Your task to perform on an android device: Go to Amazon Image 0: 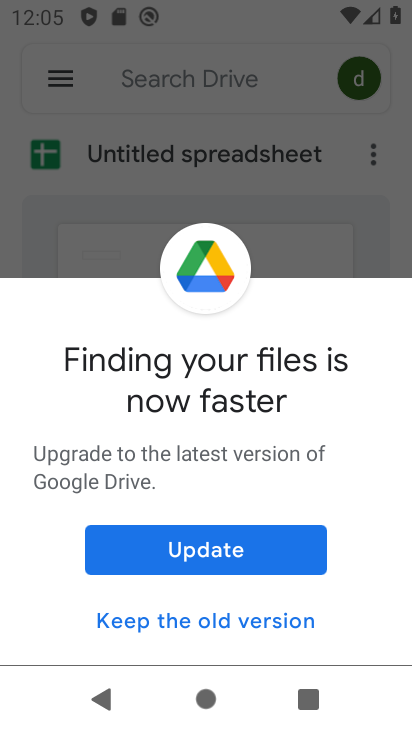
Step 0: press home button
Your task to perform on an android device: Go to Amazon Image 1: 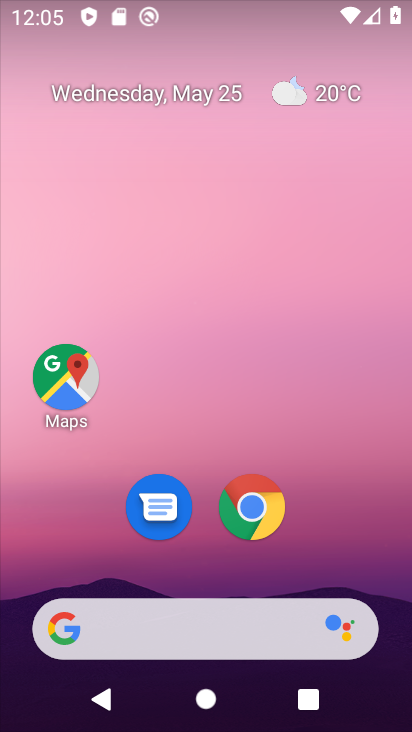
Step 1: drag from (323, 548) to (291, 176)
Your task to perform on an android device: Go to Amazon Image 2: 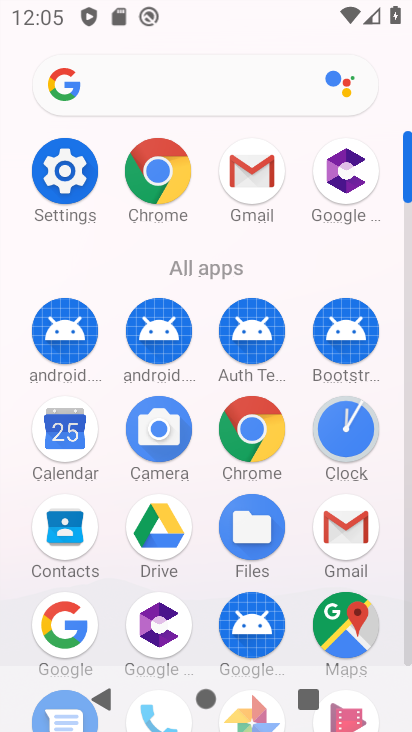
Step 2: drag from (275, 604) to (301, 269)
Your task to perform on an android device: Go to Amazon Image 3: 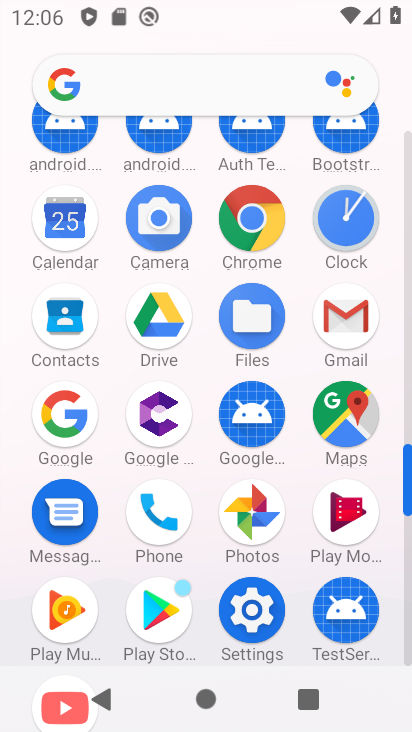
Step 3: drag from (212, 487) to (221, 204)
Your task to perform on an android device: Go to Amazon Image 4: 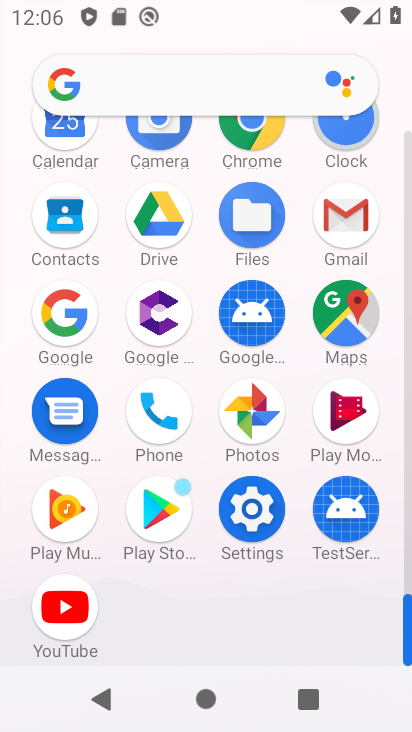
Step 4: drag from (204, 188) to (176, 571)
Your task to perform on an android device: Go to Amazon Image 5: 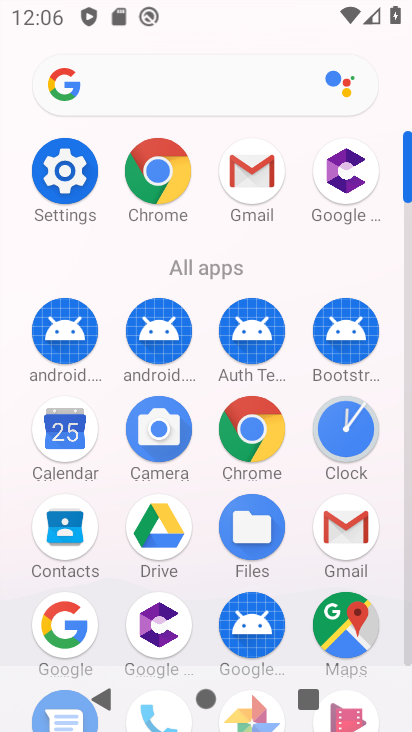
Step 5: click (259, 429)
Your task to perform on an android device: Go to Amazon Image 6: 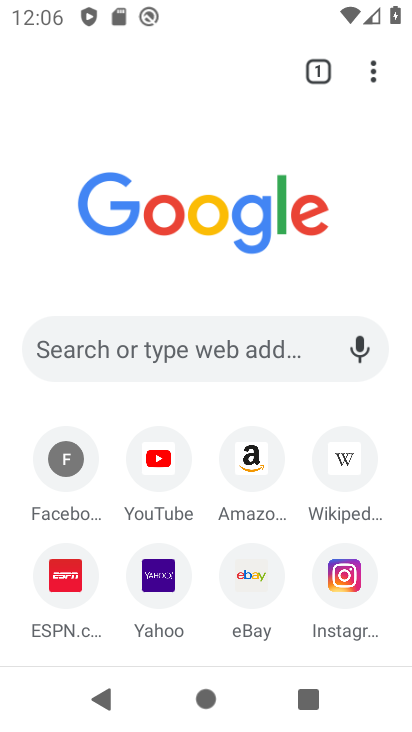
Step 6: click (258, 462)
Your task to perform on an android device: Go to Amazon Image 7: 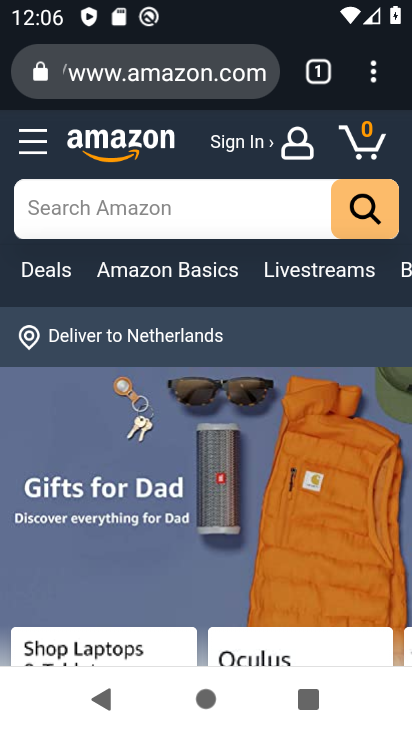
Step 7: task complete